Your task to perform on an android device: turn off priority inbox in the gmail app Image 0: 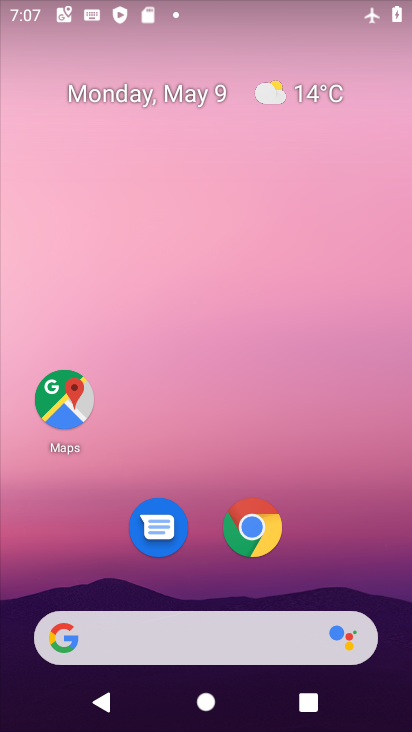
Step 0: drag from (328, 573) to (189, 95)
Your task to perform on an android device: turn off priority inbox in the gmail app Image 1: 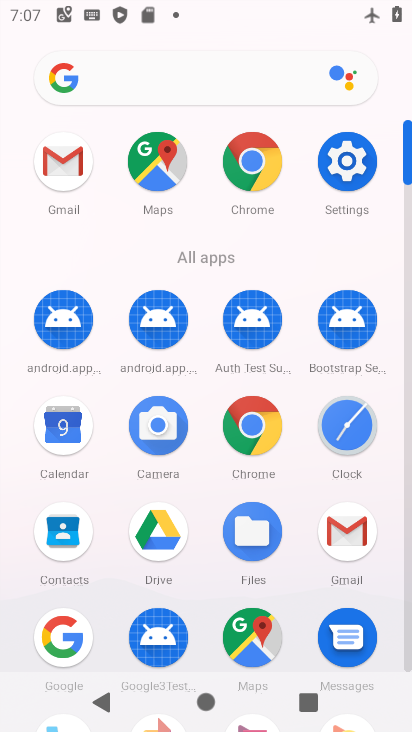
Step 1: click (59, 155)
Your task to perform on an android device: turn off priority inbox in the gmail app Image 2: 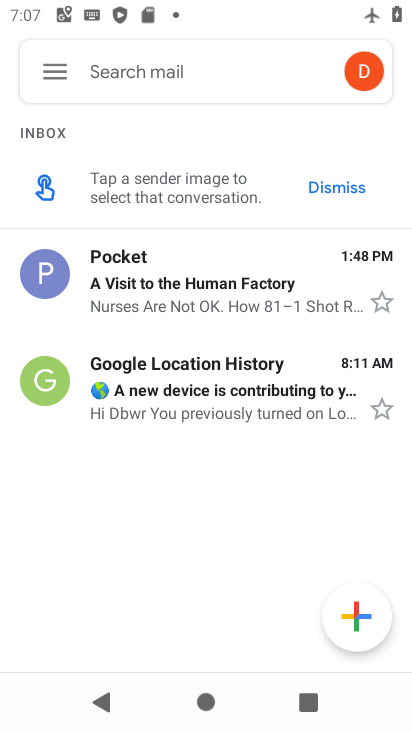
Step 2: click (57, 64)
Your task to perform on an android device: turn off priority inbox in the gmail app Image 3: 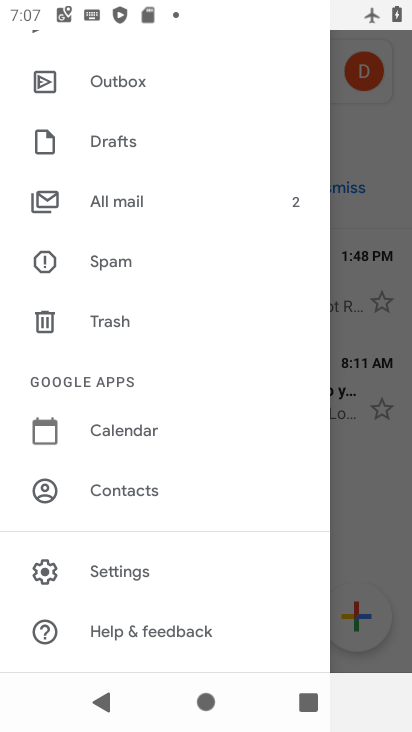
Step 3: click (136, 570)
Your task to perform on an android device: turn off priority inbox in the gmail app Image 4: 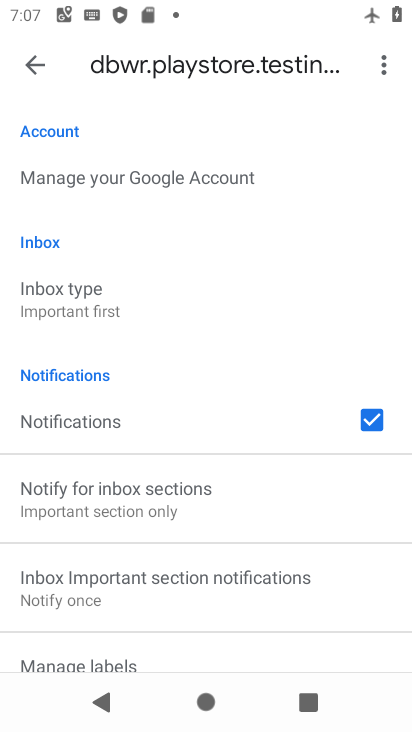
Step 4: click (82, 292)
Your task to perform on an android device: turn off priority inbox in the gmail app Image 5: 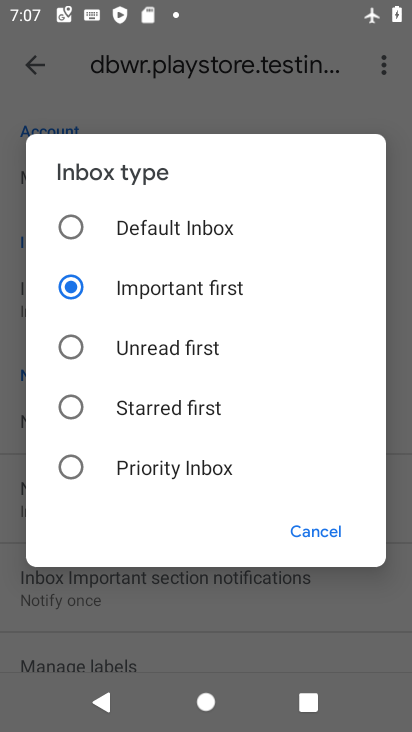
Step 5: click (77, 286)
Your task to perform on an android device: turn off priority inbox in the gmail app Image 6: 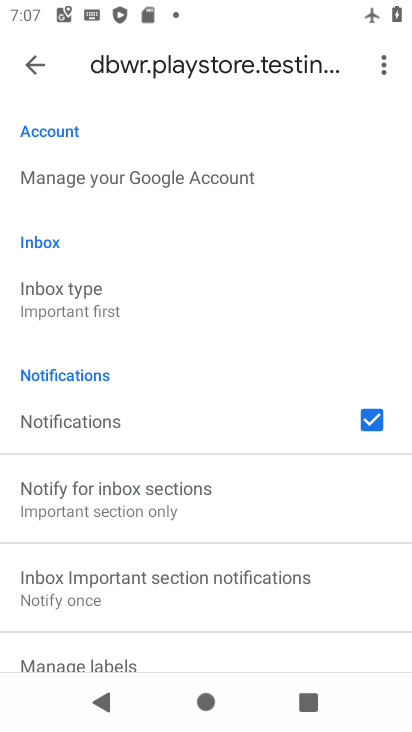
Step 6: task complete